Your task to perform on an android device: change notifications settings Image 0: 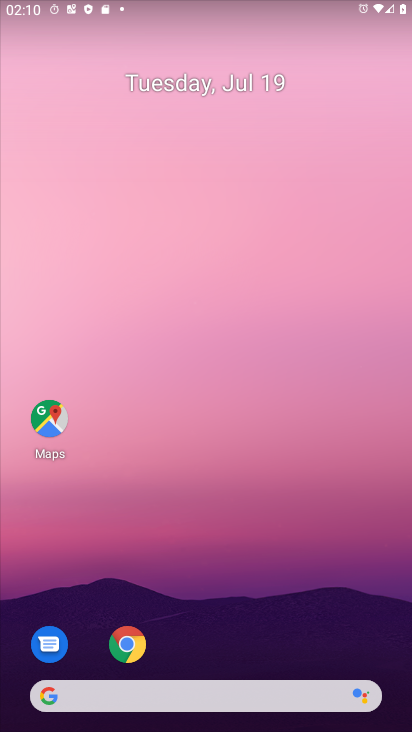
Step 0: drag from (219, 529) to (219, 222)
Your task to perform on an android device: change notifications settings Image 1: 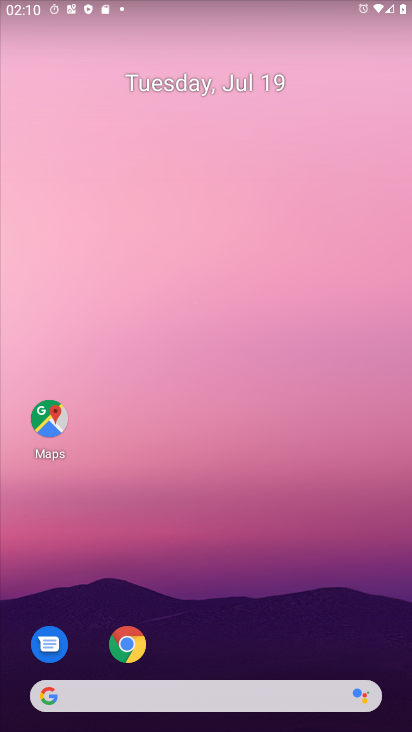
Step 1: drag from (221, 696) to (224, 138)
Your task to perform on an android device: change notifications settings Image 2: 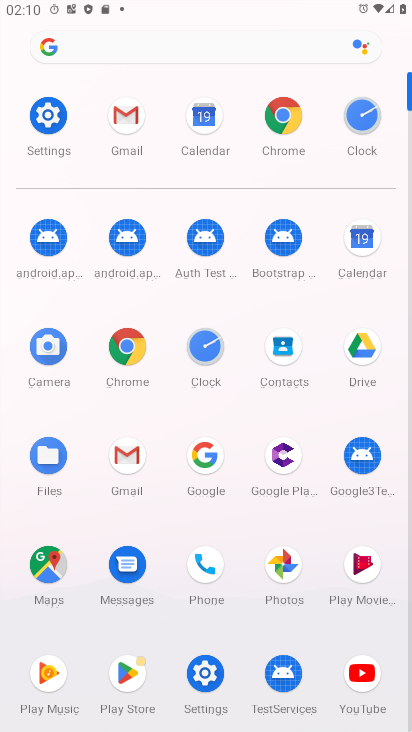
Step 2: click (45, 112)
Your task to perform on an android device: change notifications settings Image 3: 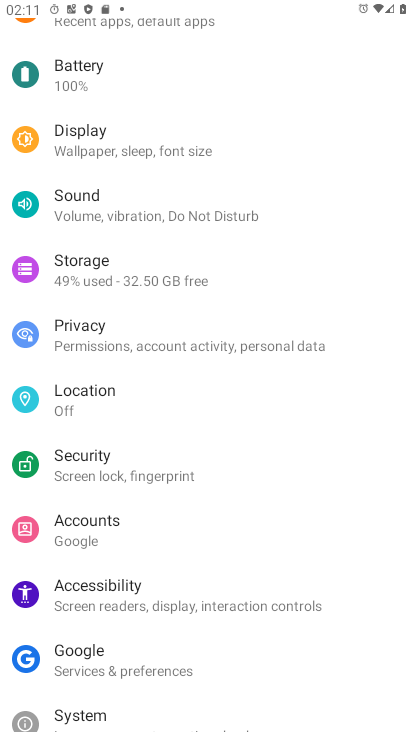
Step 3: drag from (141, 92) to (170, 479)
Your task to perform on an android device: change notifications settings Image 4: 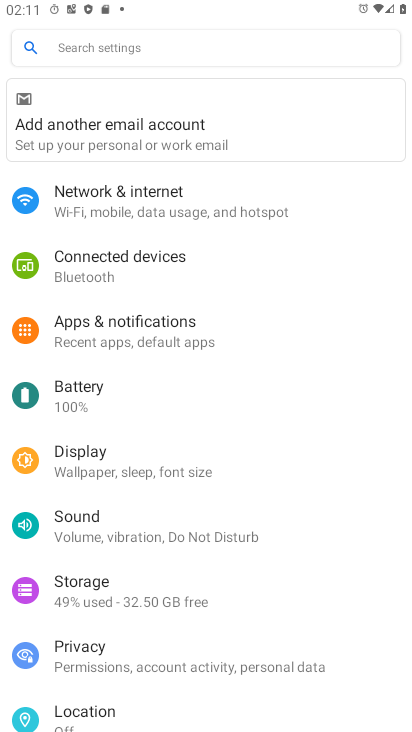
Step 4: click (134, 335)
Your task to perform on an android device: change notifications settings Image 5: 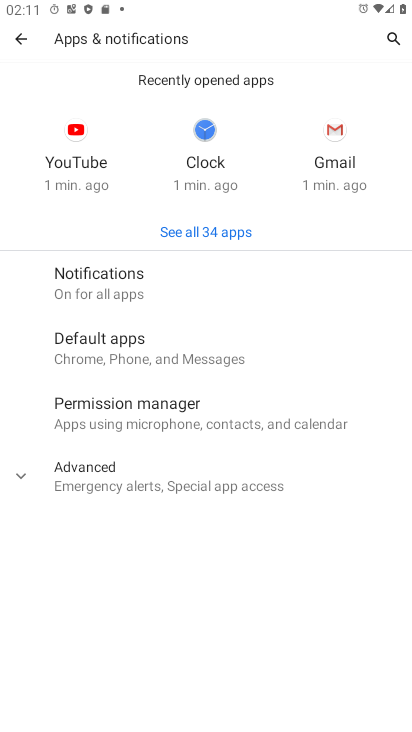
Step 5: click (101, 288)
Your task to perform on an android device: change notifications settings Image 6: 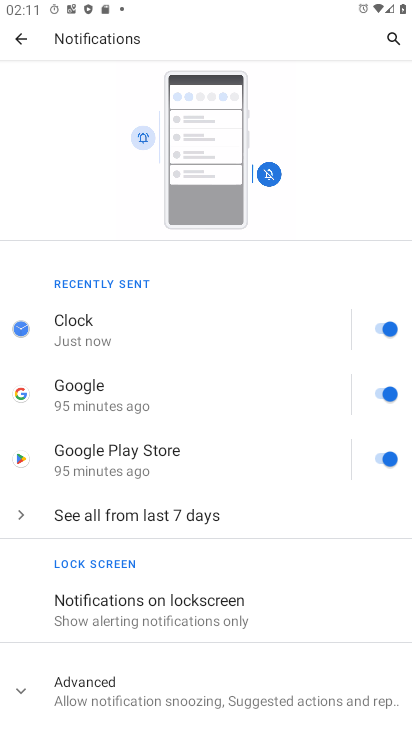
Step 6: click (179, 689)
Your task to perform on an android device: change notifications settings Image 7: 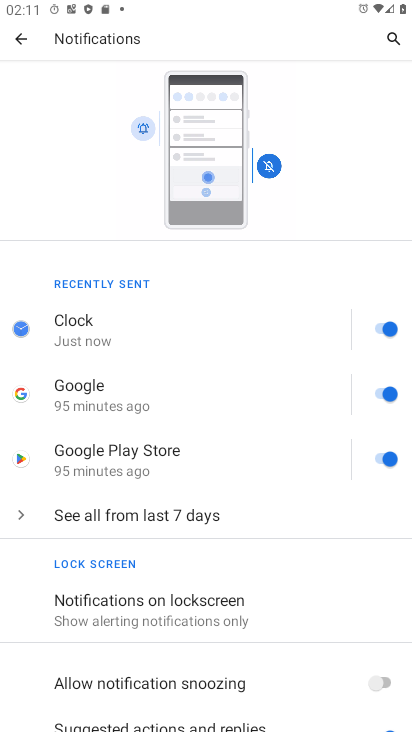
Step 7: click (388, 684)
Your task to perform on an android device: change notifications settings Image 8: 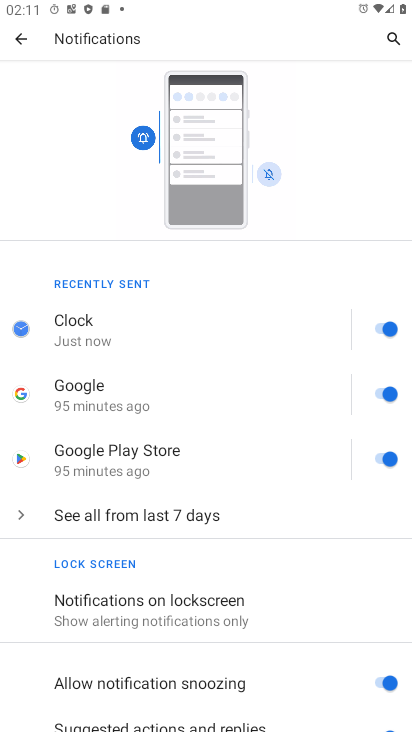
Step 8: task complete